Your task to perform on an android device: turn on data saver in the chrome app Image 0: 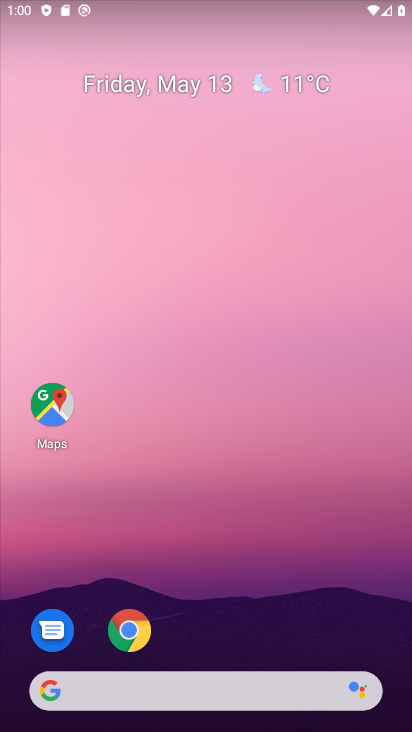
Step 0: drag from (234, 621) to (219, 222)
Your task to perform on an android device: turn on data saver in the chrome app Image 1: 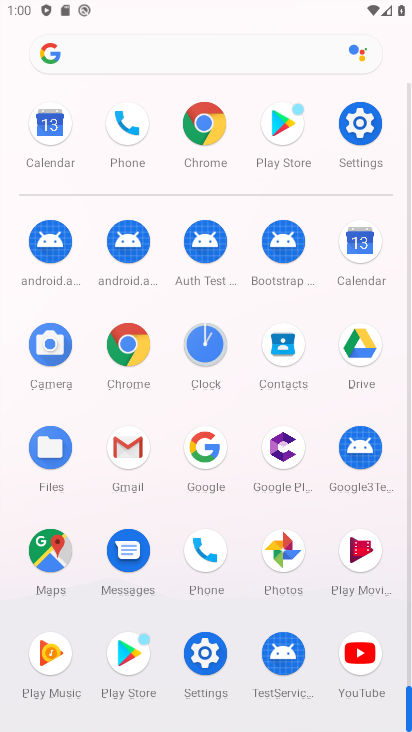
Step 1: click (113, 365)
Your task to perform on an android device: turn on data saver in the chrome app Image 2: 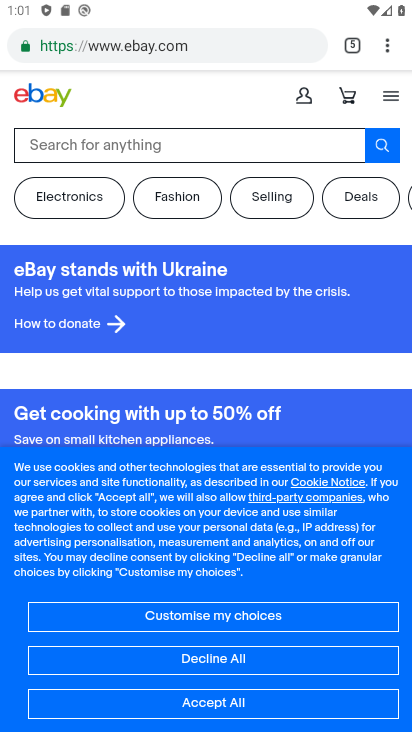
Step 2: click (386, 41)
Your task to perform on an android device: turn on data saver in the chrome app Image 3: 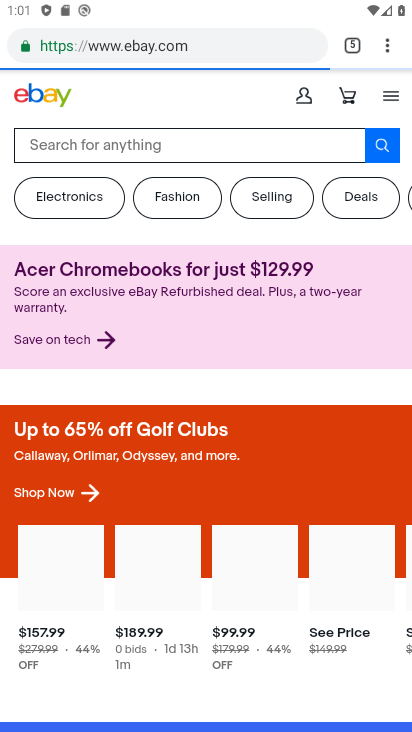
Step 3: click (382, 51)
Your task to perform on an android device: turn on data saver in the chrome app Image 4: 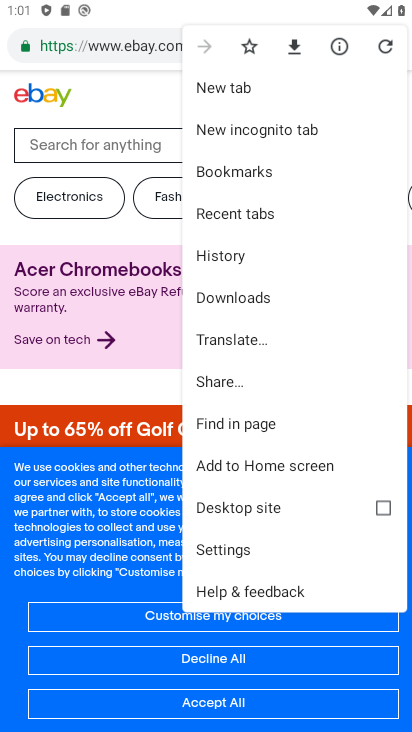
Step 4: click (266, 546)
Your task to perform on an android device: turn on data saver in the chrome app Image 5: 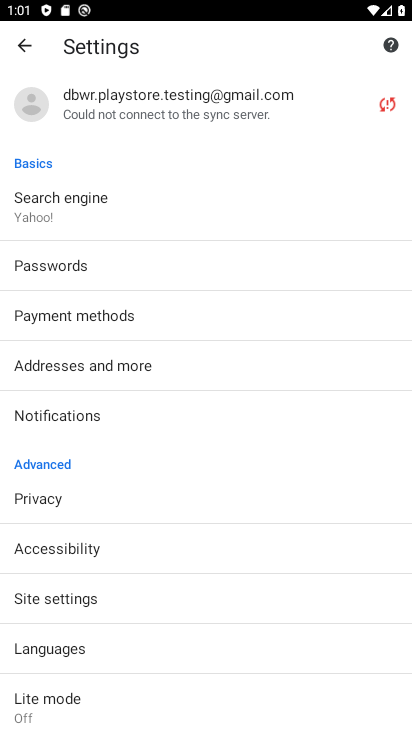
Step 5: click (170, 699)
Your task to perform on an android device: turn on data saver in the chrome app Image 6: 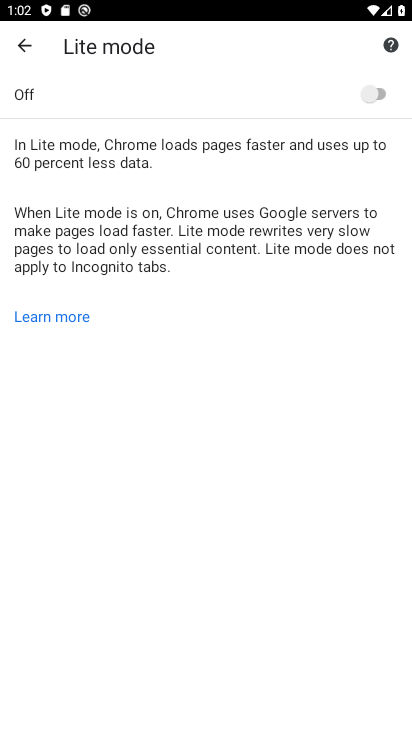
Step 6: click (375, 100)
Your task to perform on an android device: turn on data saver in the chrome app Image 7: 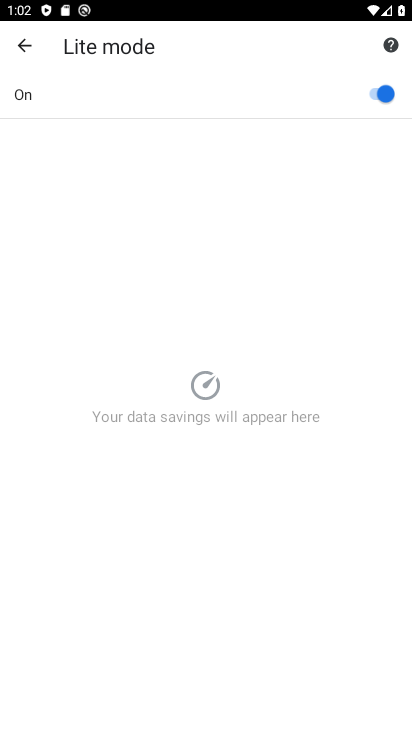
Step 7: task complete